Your task to perform on an android device: toggle notification dots Image 0: 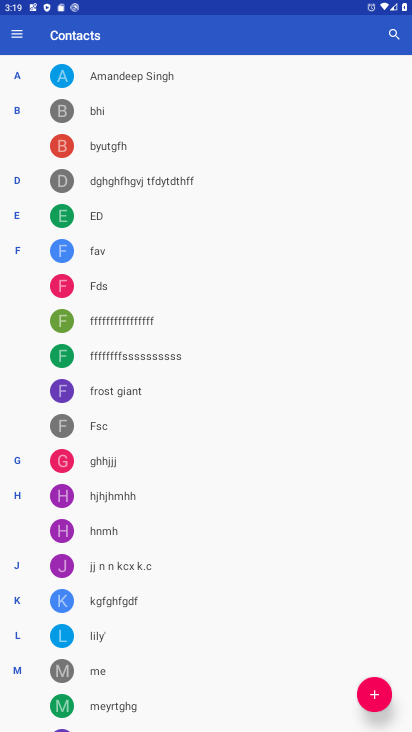
Step 0: press home button
Your task to perform on an android device: toggle notification dots Image 1: 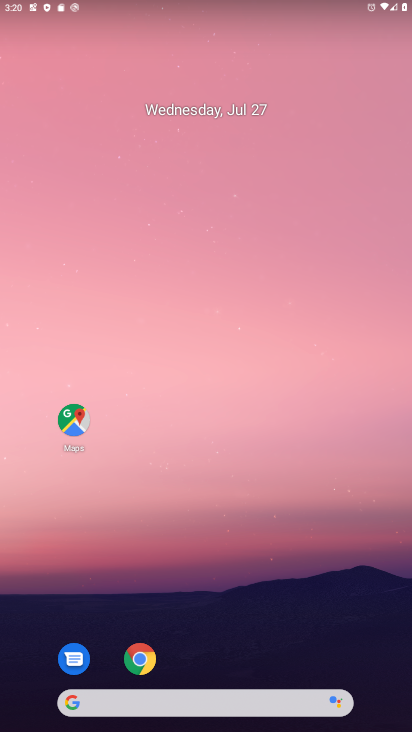
Step 1: drag from (306, 626) to (228, 263)
Your task to perform on an android device: toggle notification dots Image 2: 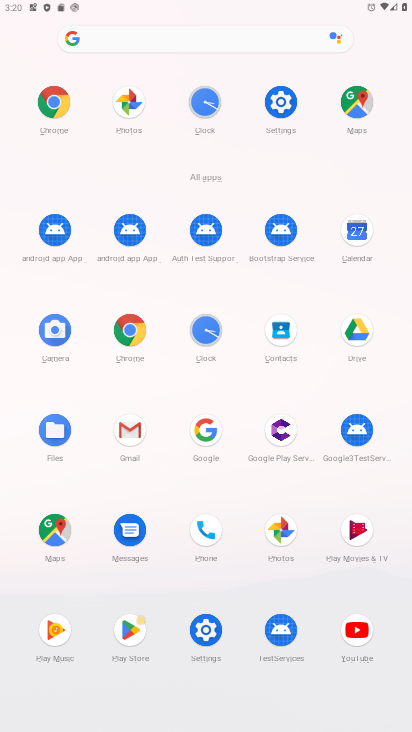
Step 2: click (280, 105)
Your task to perform on an android device: toggle notification dots Image 3: 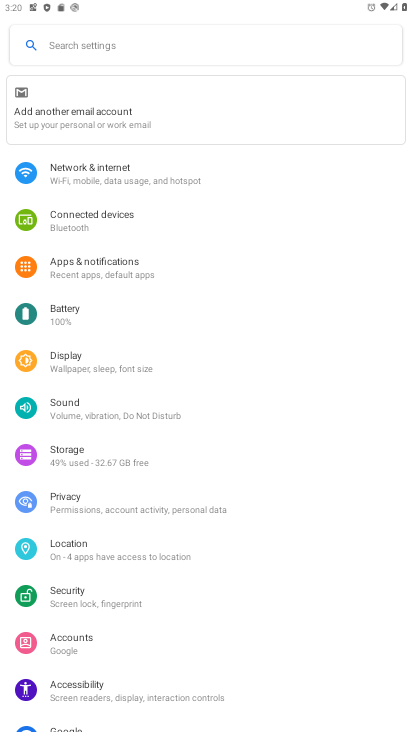
Step 3: click (196, 268)
Your task to perform on an android device: toggle notification dots Image 4: 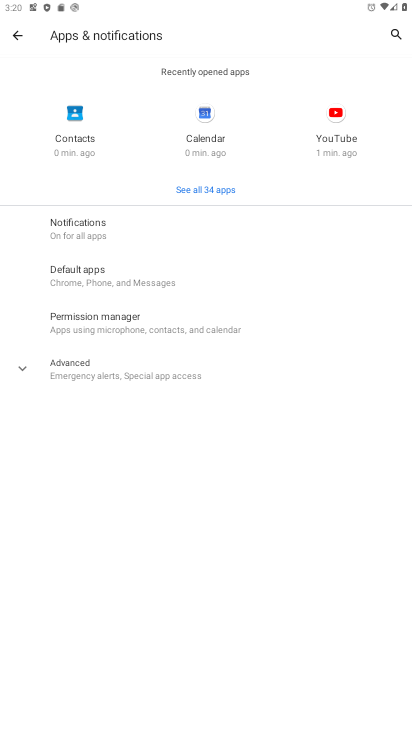
Step 4: click (142, 234)
Your task to perform on an android device: toggle notification dots Image 5: 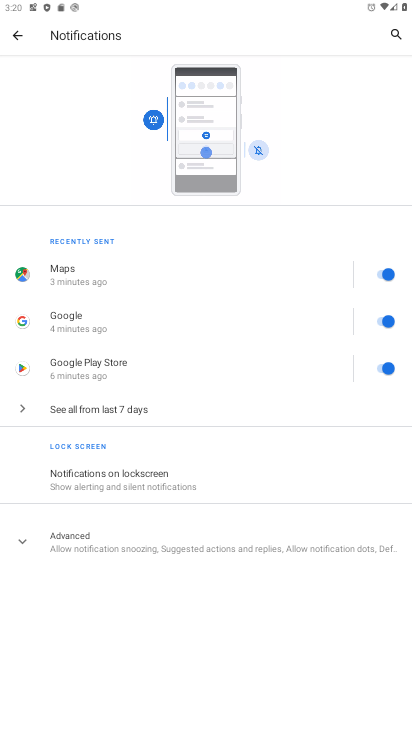
Step 5: click (181, 545)
Your task to perform on an android device: toggle notification dots Image 6: 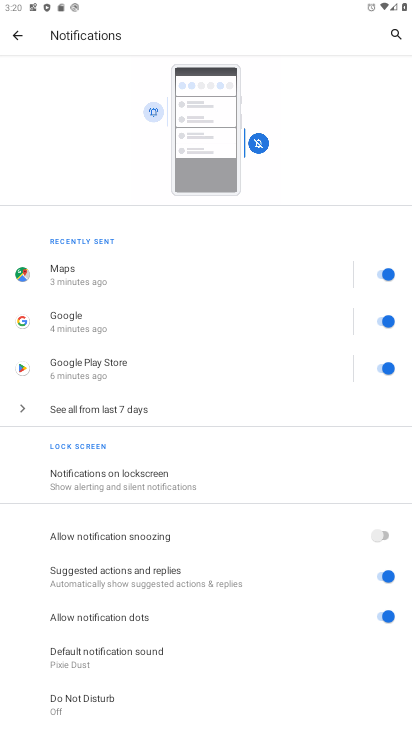
Step 6: drag from (181, 521) to (141, 176)
Your task to perform on an android device: toggle notification dots Image 7: 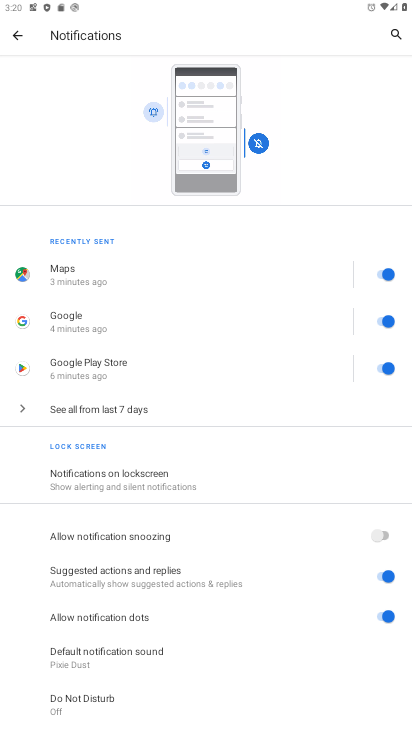
Step 7: click (383, 615)
Your task to perform on an android device: toggle notification dots Image 8: 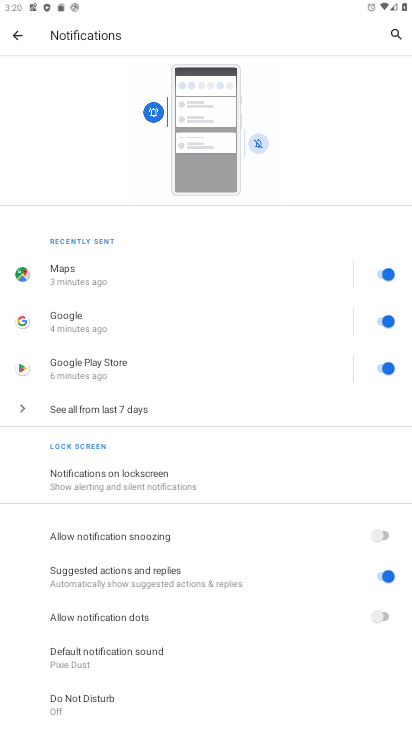
Step 8: task complete